Your task to perform on an android device: all mails in gmail Image 0: 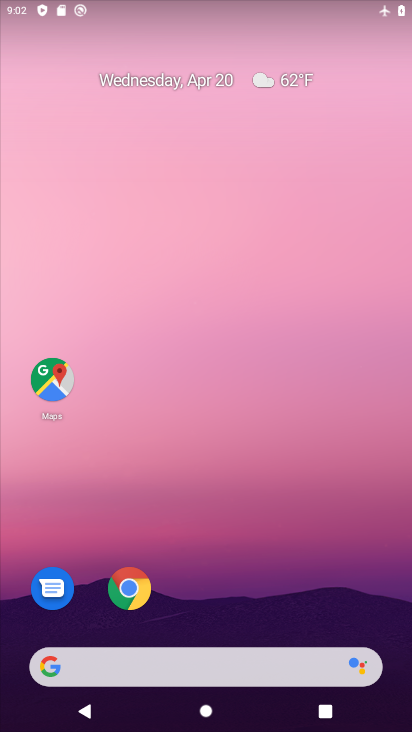
Step 0: drag from (262, 576) to (162, 3)
Your task to perform on an android device: all mails in gmail Image 1: 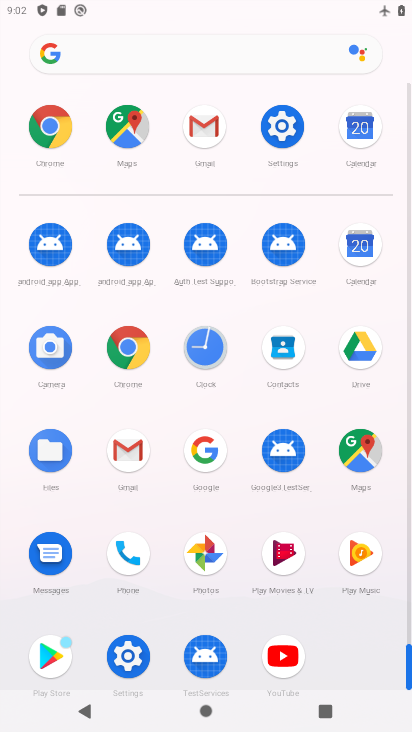
Step 1: click (206, 123)
Your task to perform on an android device: all mails in gmail Image 2: 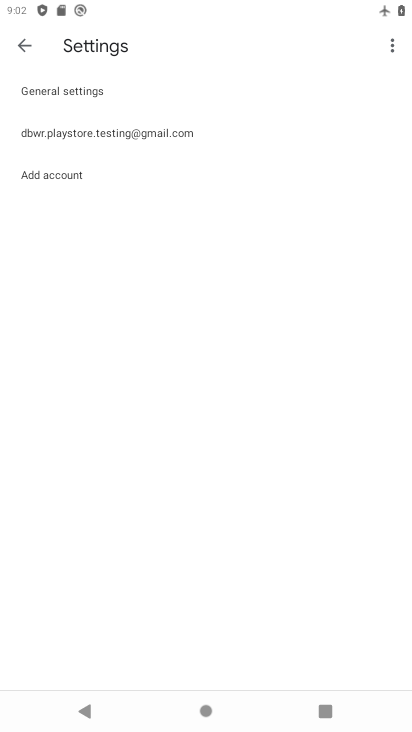
Step 2: click (78, 127)
Your task to perform on an android device: all mails in gmail Image 3: 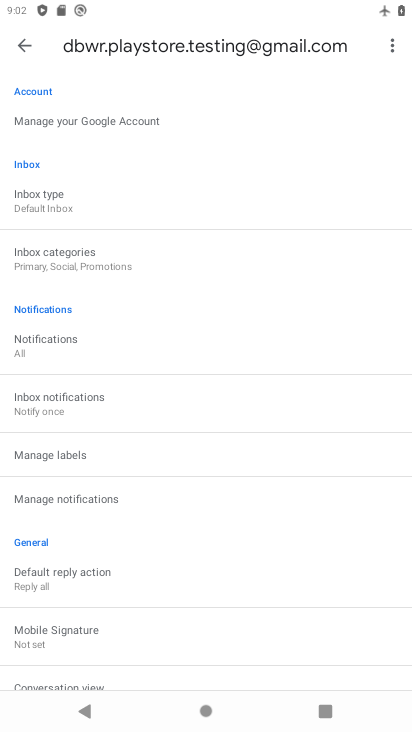
Step 3: click (20, 34)
Your task to perform on an android device: all mails in gmail Image 4: 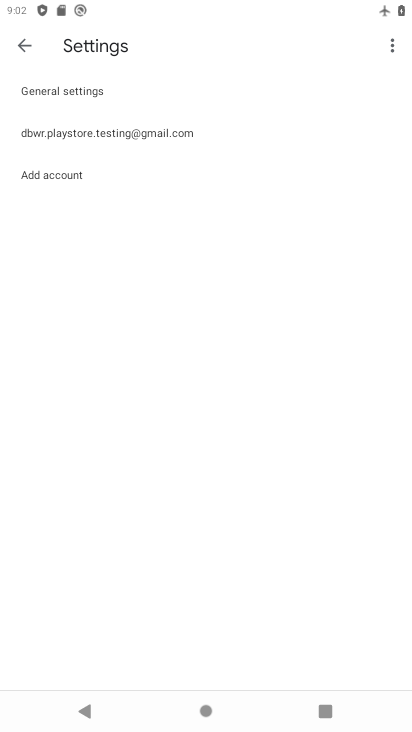
Step 4: click (20, 34)
Your task to perform on an android device: all mails in gmail Image 5: 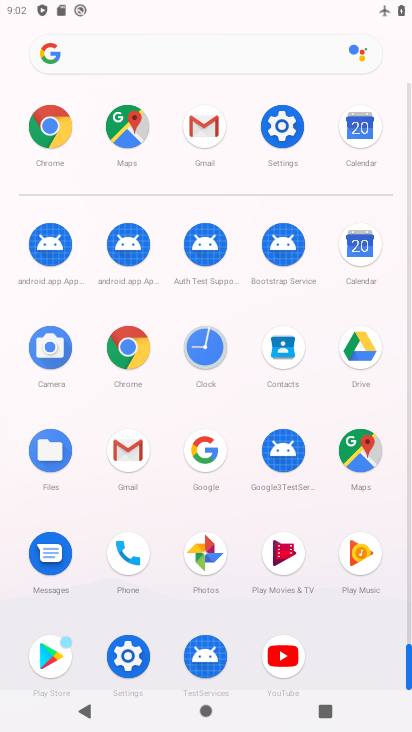
Step 5: click (202, 120)
Your task to perform on an android device: all mails in gmail Image 6: 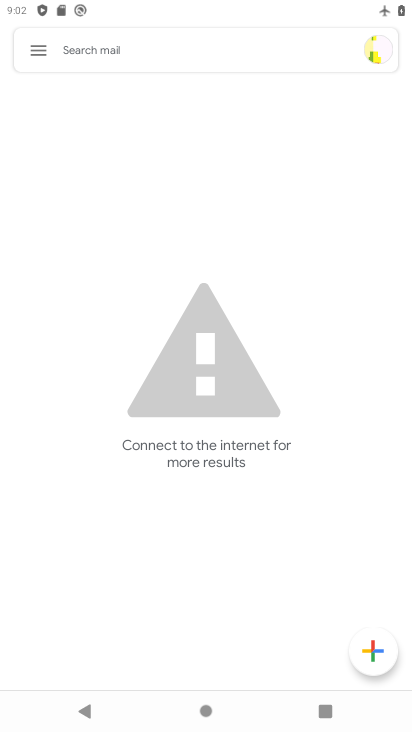
Step 6: click (33, 44)
Your task to perform on an android device: all mails in gmail Image 7: 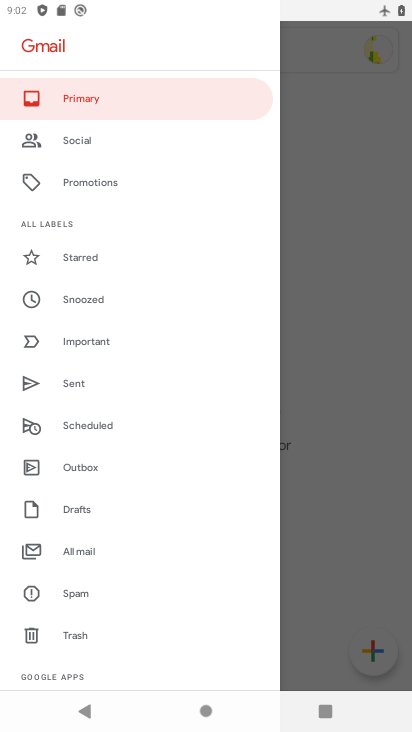
Step 7: drag from (141, 422) to (153, 156)
Your task to perform on an android device: all mails in gmail Image 8: 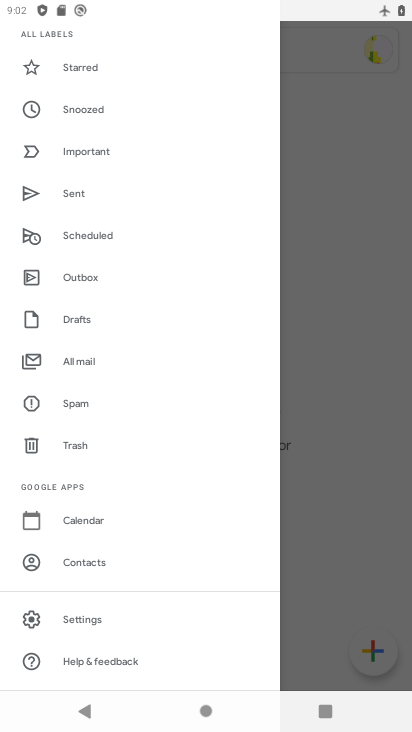
Step 8: click (79, 359)
Your task to perform on an android device: all mails in gmail Image 9: 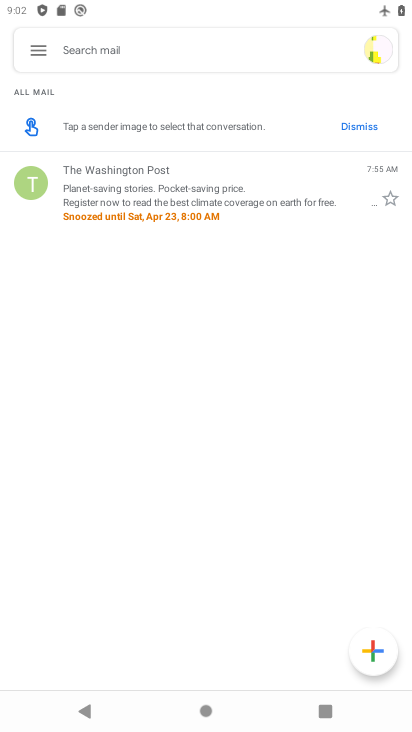
Step 9: task complete